Your task to perform on an android device: turn off notifications settings in the gmail app Image 0: 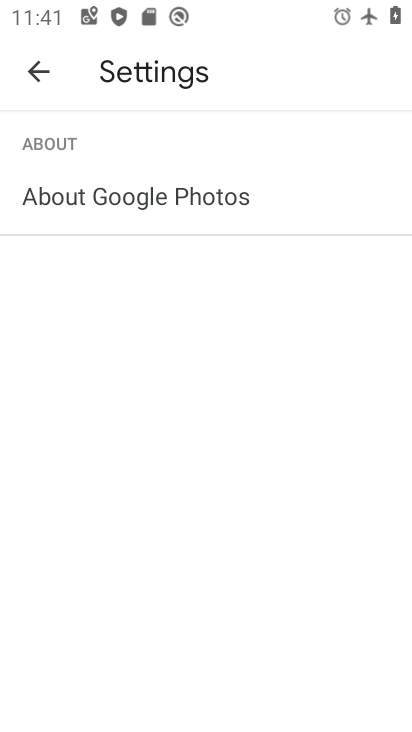
Step 0: press home button
Your task to perform on an android device: turn off notifications settings in the gmail app Image 1: 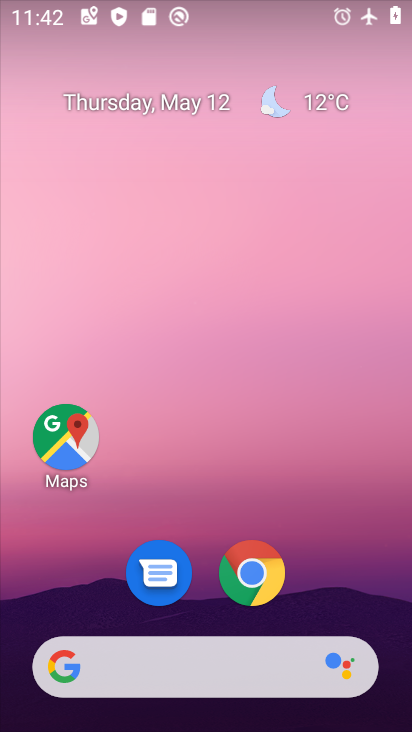
Step 1: drag from (215, 690) to (179, 1)
Your task to perform on an android device: turn off notifications settings in the gmail app Image 2: 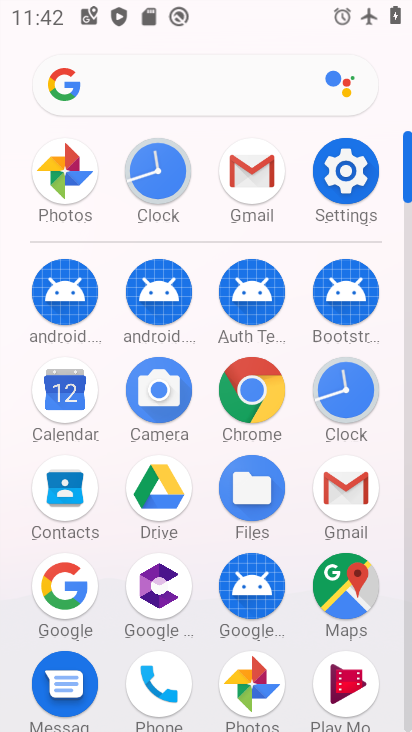
Step 2: click (232, 170)
Your task to perform on an android device: turn off notifications settings in the gmail app Image 3: 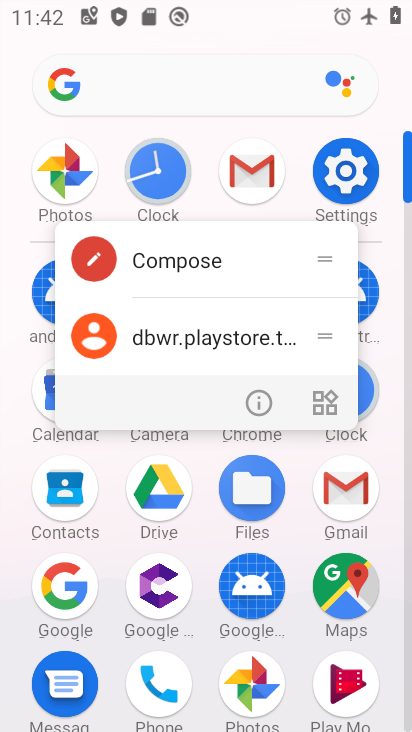
Step 3: click (252, 403)
Your task to perform on an android device: turn off notifications settings in the gmail app Image 4: 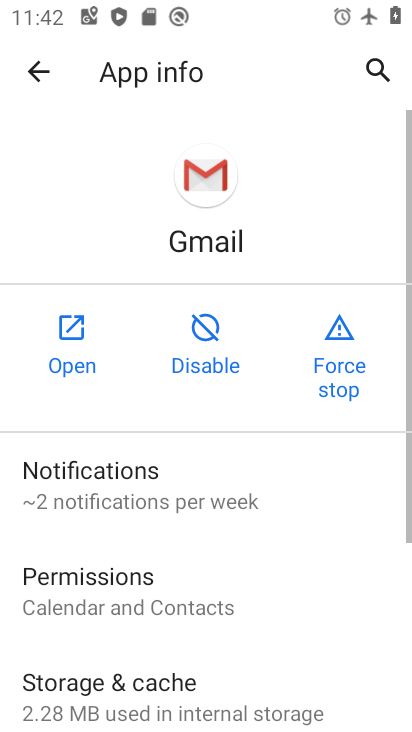
Step 4: click (180, 471)
Your task to perform on an android device: turn off notifications settings in the gmail app Image 5: 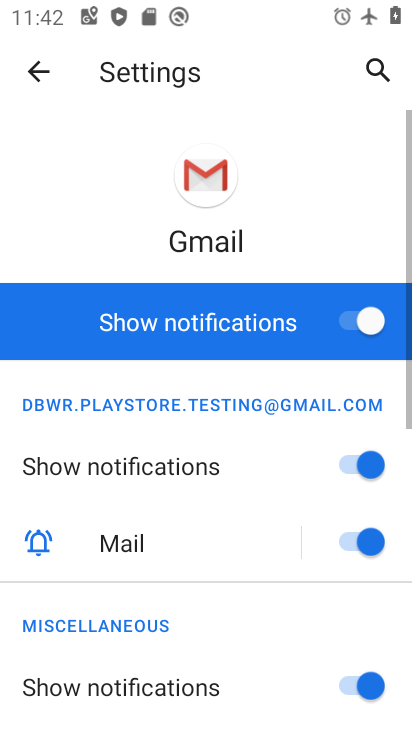
Step 5: click (373, 328)
Your task to perform on an android device: turn off notifications settings in the gmail app Image 6: 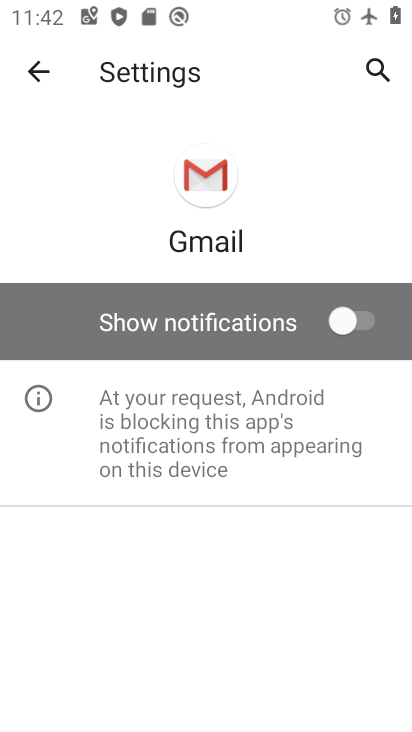
Step 6: task complete